Your task to perform on an android device: allow cookies in the chrome app Image 0: 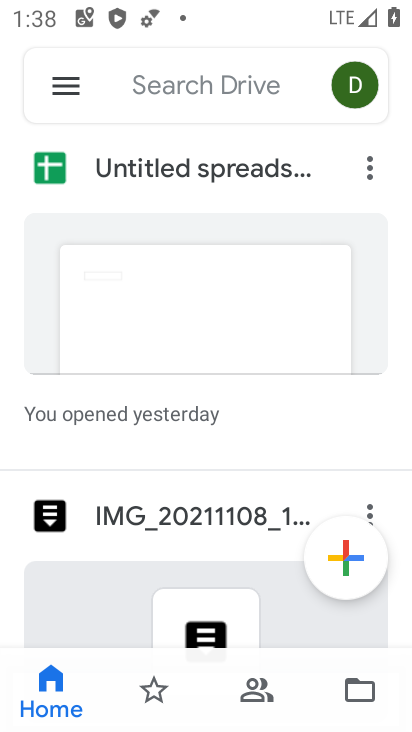
Step 0: press home button
Your task to perform on an android device: allow cookies in the chrome app Image 1: 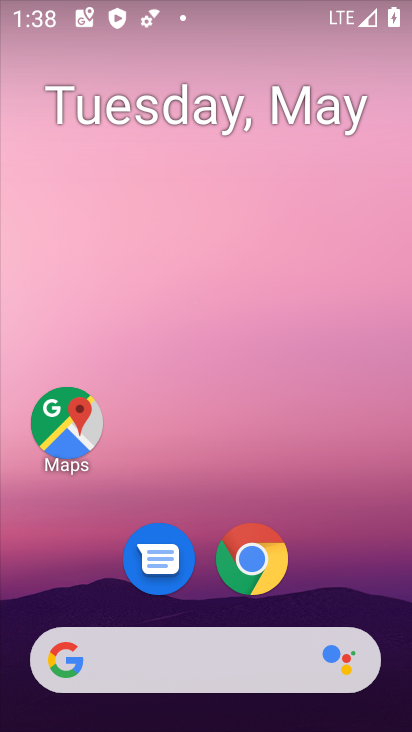
Step 1: drag from (332, 444) to (278, 26)
Your task to perform on an android device: allow cookies in the chrome app Image 2: 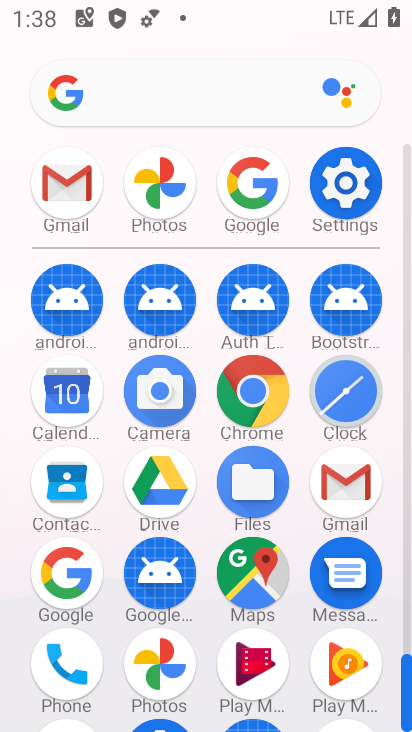
Step 2: click (257, 385)
Your task to perform on an android device: allow cookies in the chrome app Image 3: 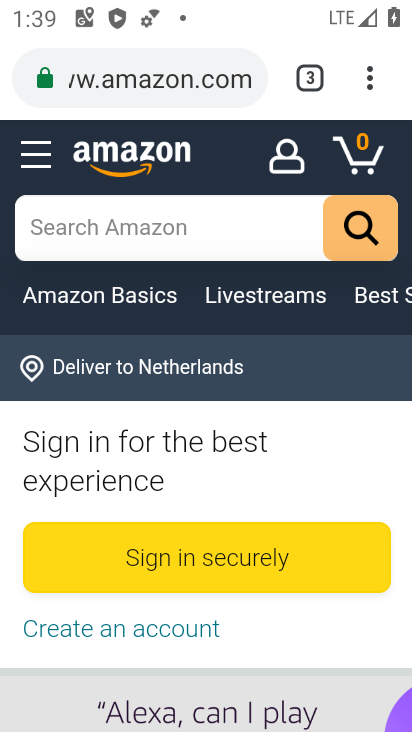
Step 3: click (372, 80)
Your task to perform on an android device: allow cookies in the chrome app Image 4: 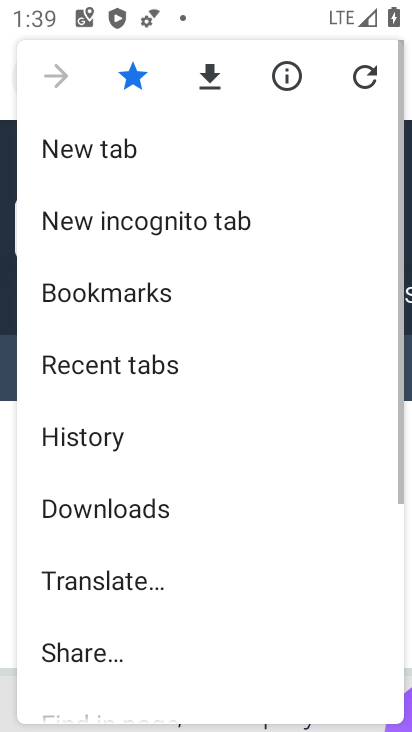
Step 4: drag from (277, 343) to (264, 39)
Your task to perform on an android device: allow cookies in the chrome app Image 5: 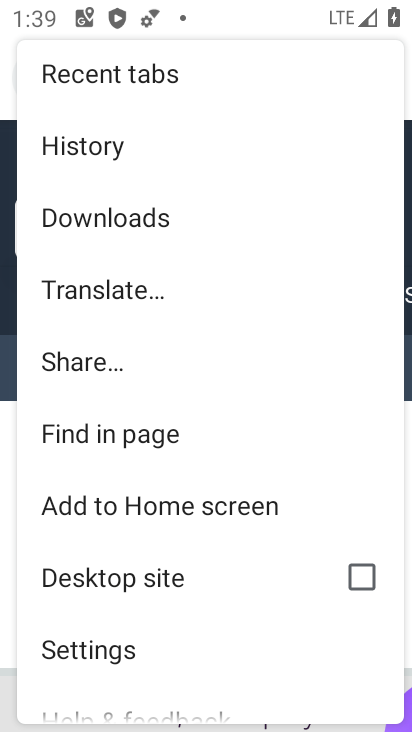
Step 5: click (191, 641)
Your task to perform on an android device: allow cookies in the chrome app Image 6: 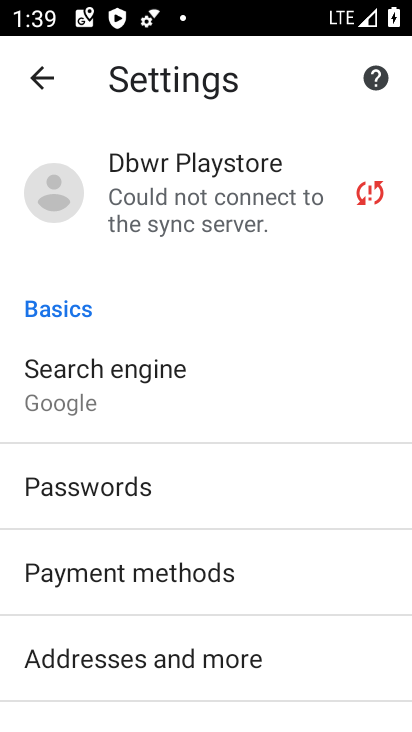
Step 6: drag from (256, 577) to (269, 181)
Your task to perform on an android device: allow cookies in the chrome app Image 7: 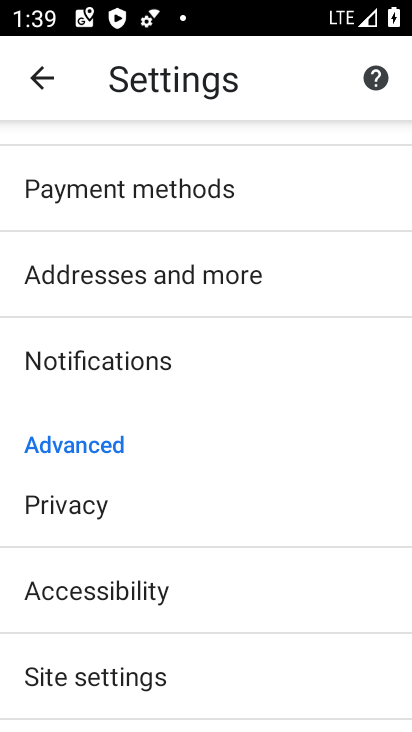
Step 7: click (178, 679)
Your task to perform on an android device: allow cookies in the chrome app Image 8: 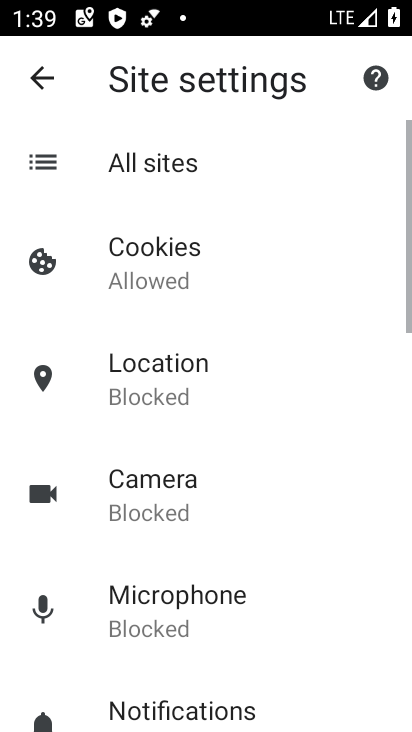
Step 8: click (202, 271)
Your task to perform on an android device: allow cookies in the chrome app Image 9: 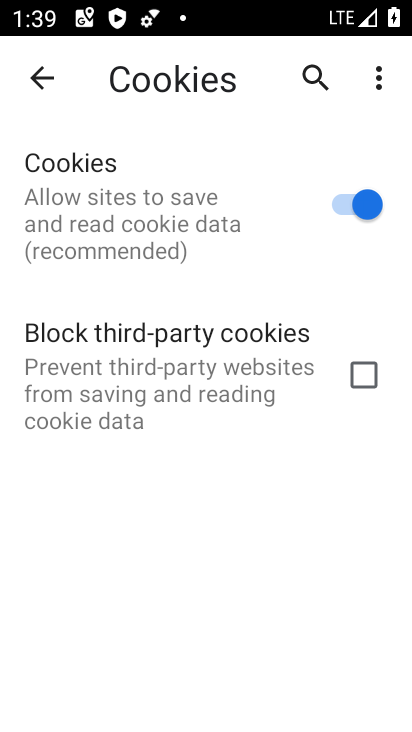
Step 9: task complete